Your task to perform on an android device: Go to Google Image 0: 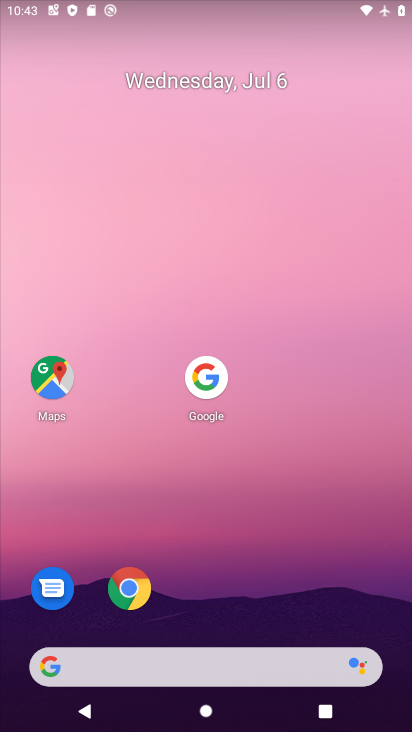
Step 0: click (202, 386)
Your task to perform on an android device: Go to Google Image 1: 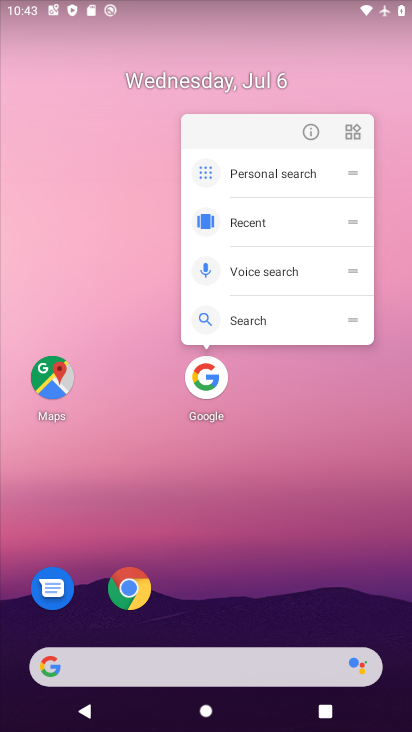
Step 1: click (201, 376)
Your task to perform on an android device: Go to Google Image 2: 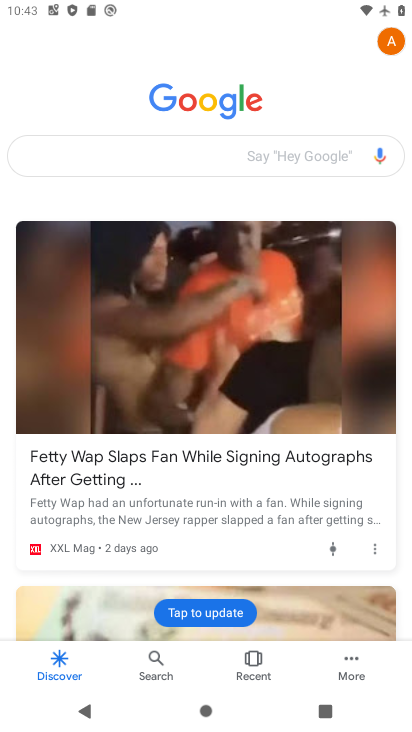
Step 2: task complete